Your task to perform on an android device: Open accessibility settings Image 0: 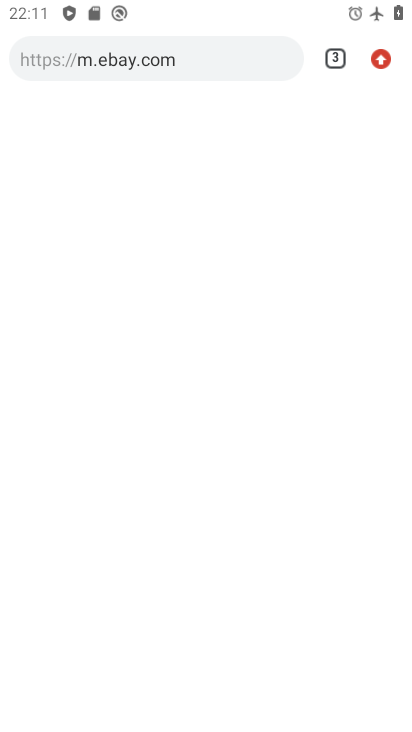
Step 0: press home button
Your task to perform on an android device: Open accessibility settings Image 1: 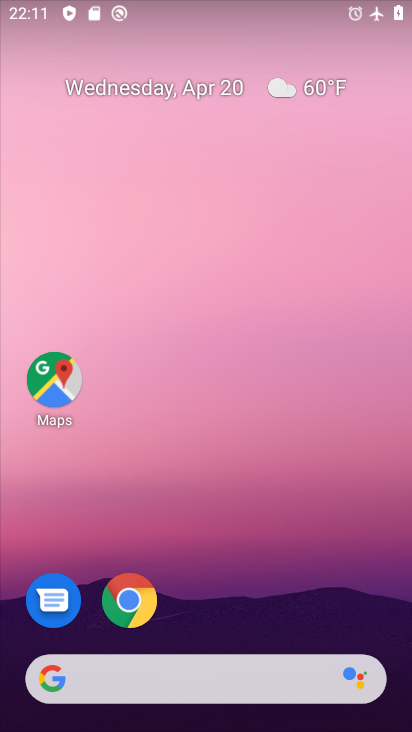
Step 1: drag from (231, 645) to (135, 26)
Your task to perform on an android device: Open accessibility settings Image 2: 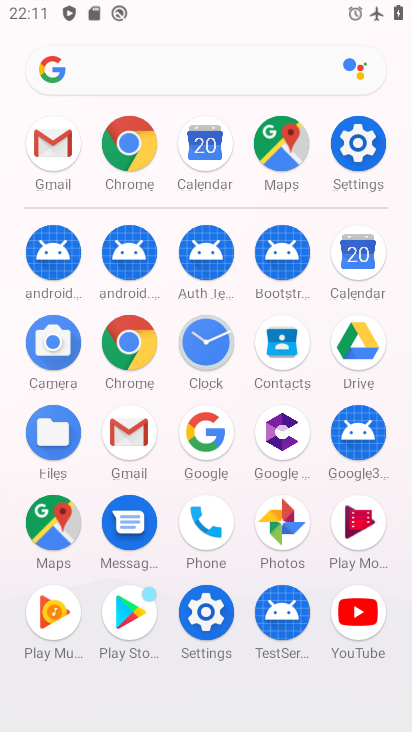
Step 2: click (190, 618)
Your task to perform on an android device: Open accessibility settings Image 3: 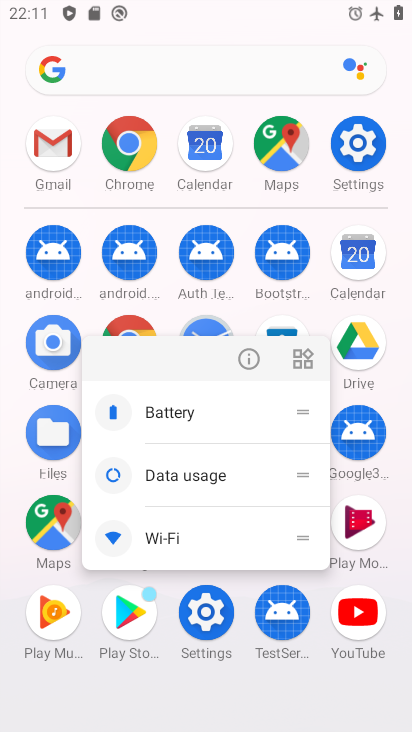
Step 3: click (199, 612)
Your task to perform on an android device: Open accessibility settings Image 4: 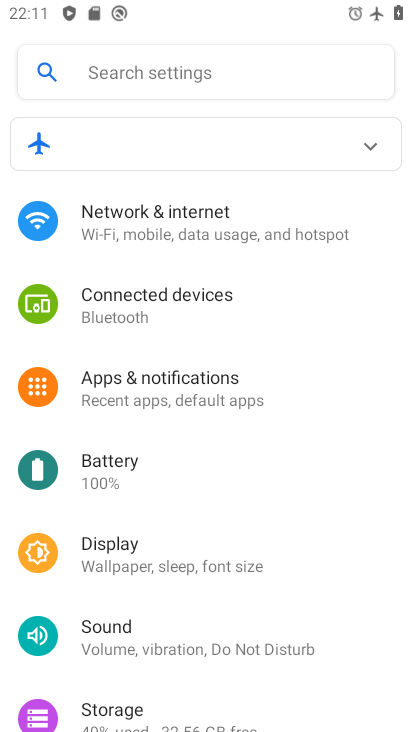
Step 4: drag from (204, 665) to (172, 144)
Your task to perform on an android device: Open accessibility settings Image 5: 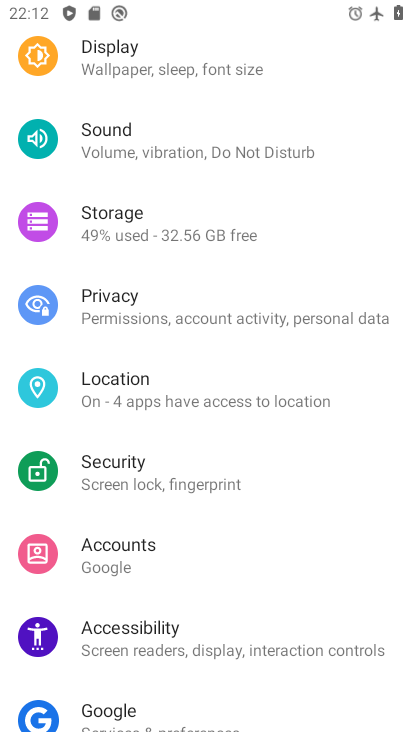
Step 5: click (175, 637)
Your task to perform on an android device: Open accessibility settings Image 6: 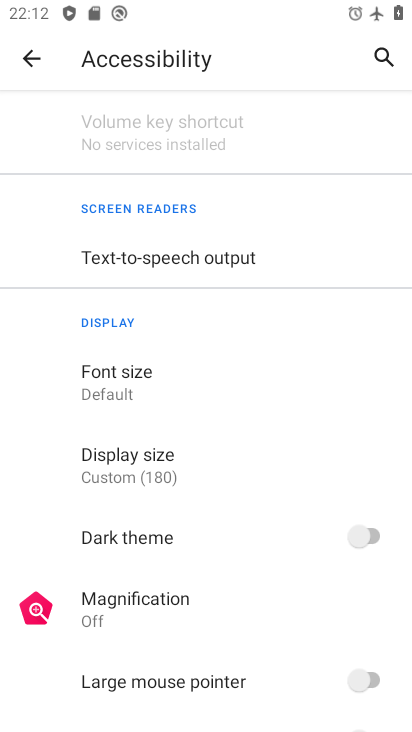
Step 6: task complete